Your task to perform on an android device: open app "Facebook Messenger" (install if not already installed) Image 0: 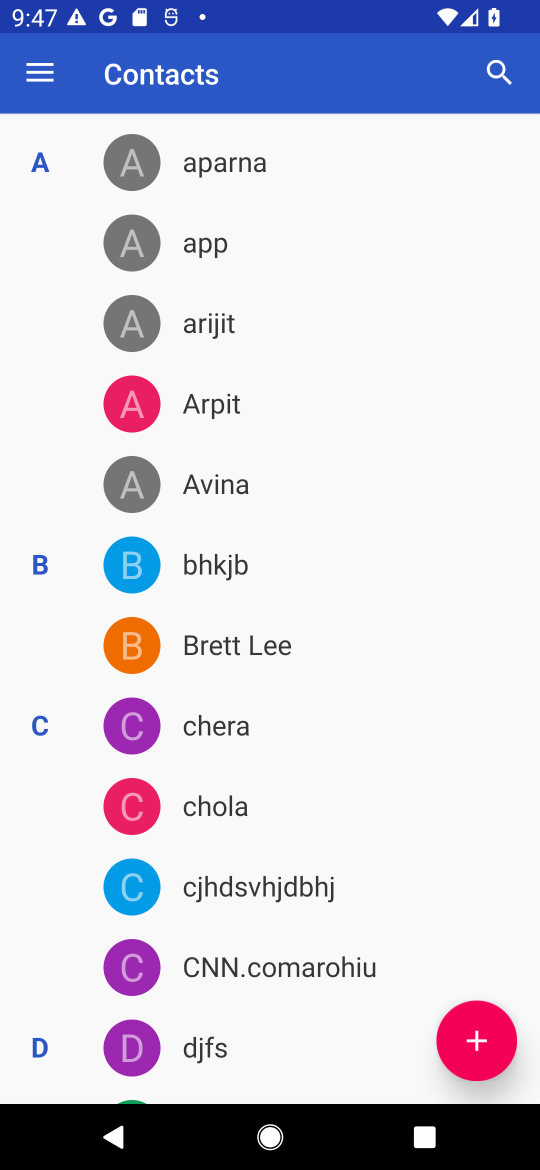
Step 0: press home button
Your task to perform on an android device: open app "Facebook Messenger" (install if not already installed) Image 1: 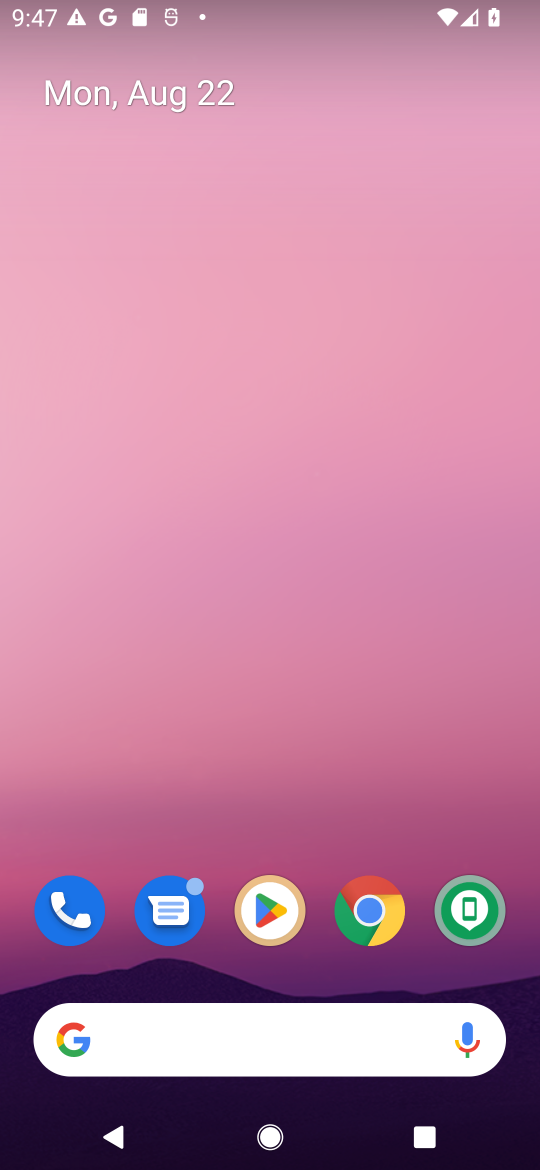
Step 1: click (267, 888)
Your task to perform on an android device: open app "Facebook Messenger" (install if not already installed) Image 2: 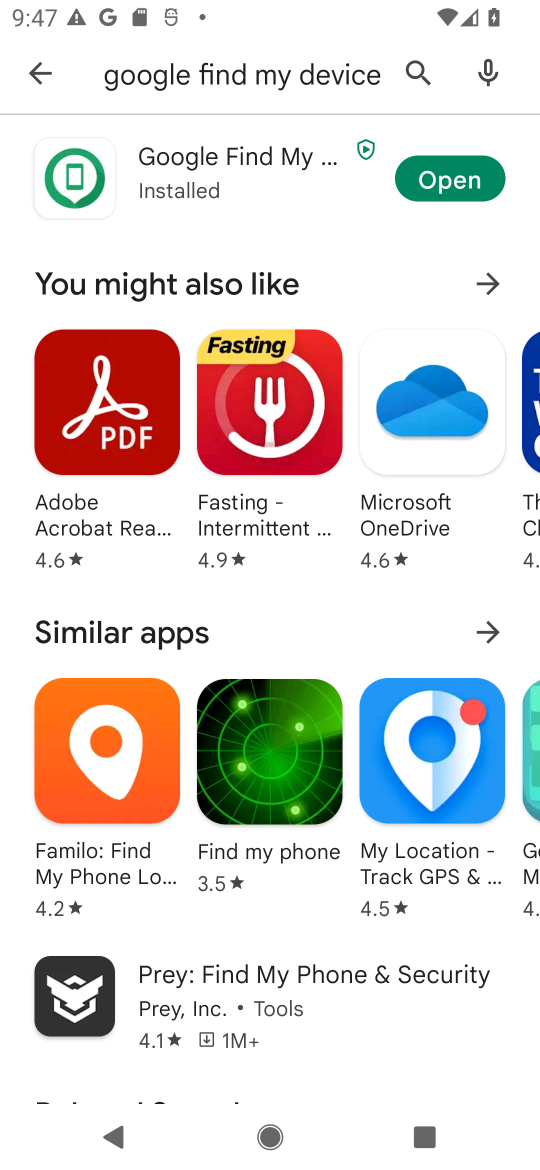
Step 2: click (413, 57)
Your task to perform on an android device: open app "Facebook Messenger" (install if not already installed) Image 3: 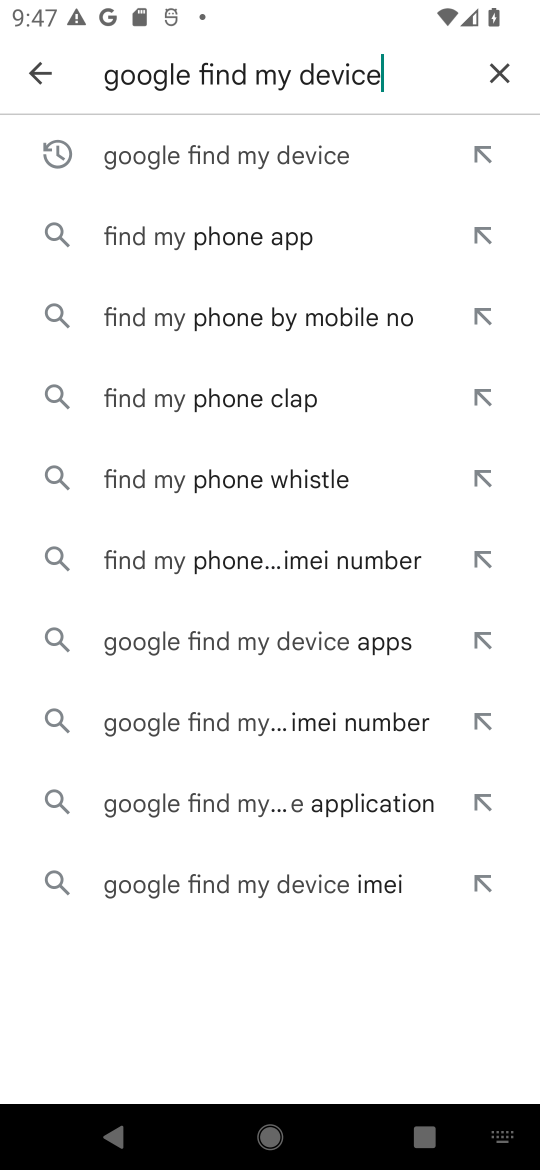
Step 3: click (491, 83)
Your task to perform on an android device: open app "Facebook Messenger" (install if not already installed) Image 4: 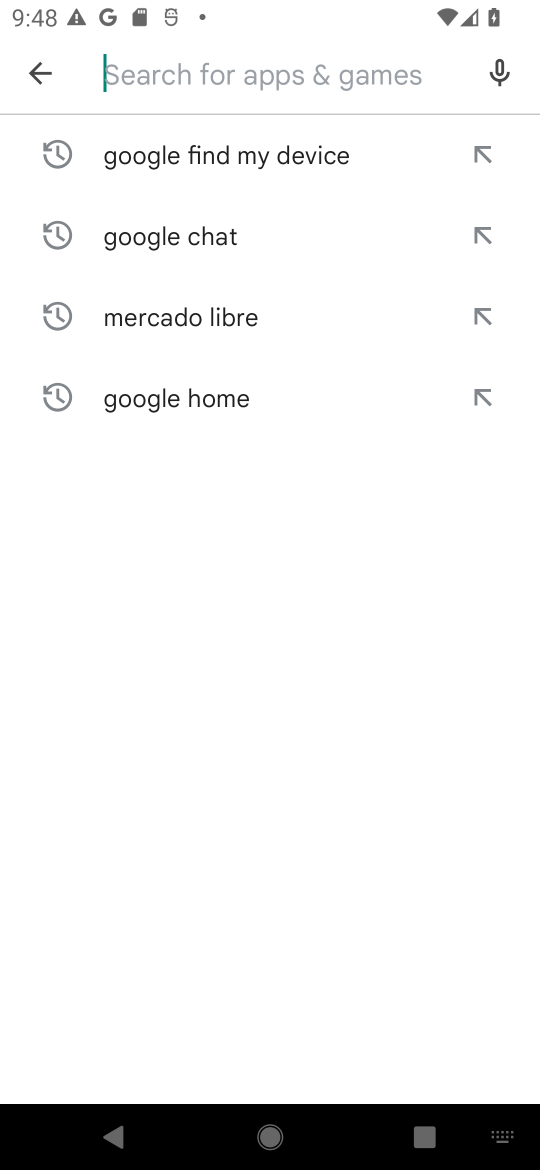
Step 4: type "Facebook Messenger"
Your task to perform on an android device: open app "Facebook Messenger" (install if not already installed) Image 5: 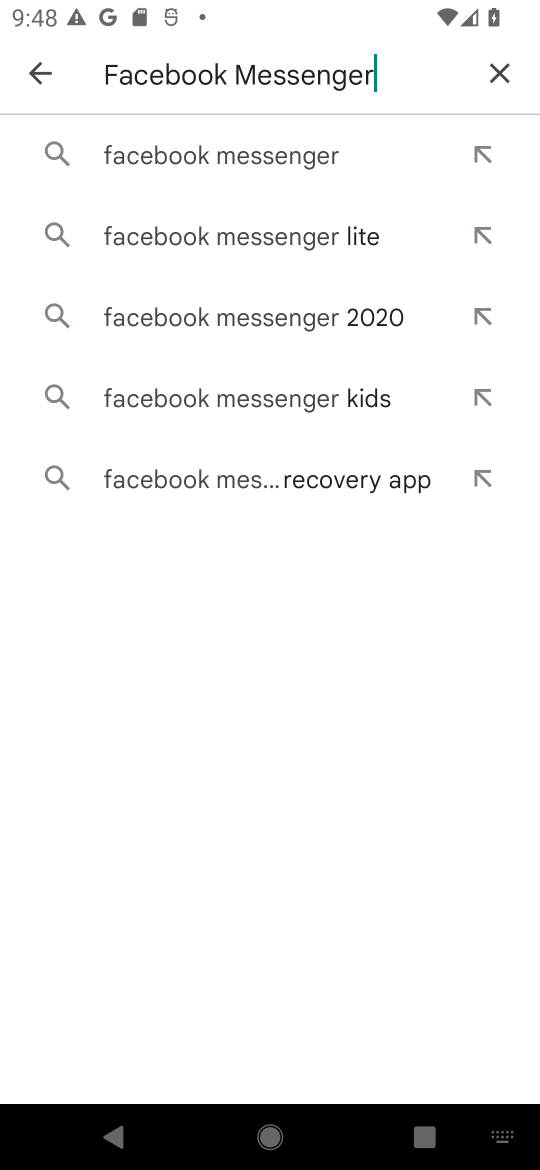
Step 5: click (256, 147)
Your task to perform on an android device: open app "Facebook Messenger" (install if not already installed) Image 6: 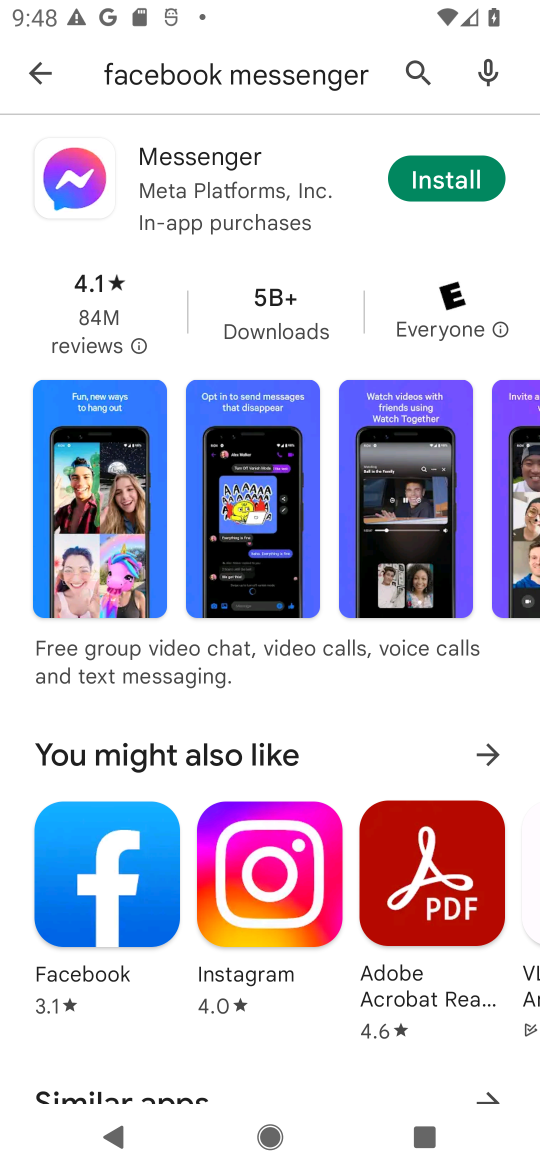
Step 6: click (436, 184)
Your task to perform on an android device: open app "Facebook Messenger" (install if not already installed) Image 7: 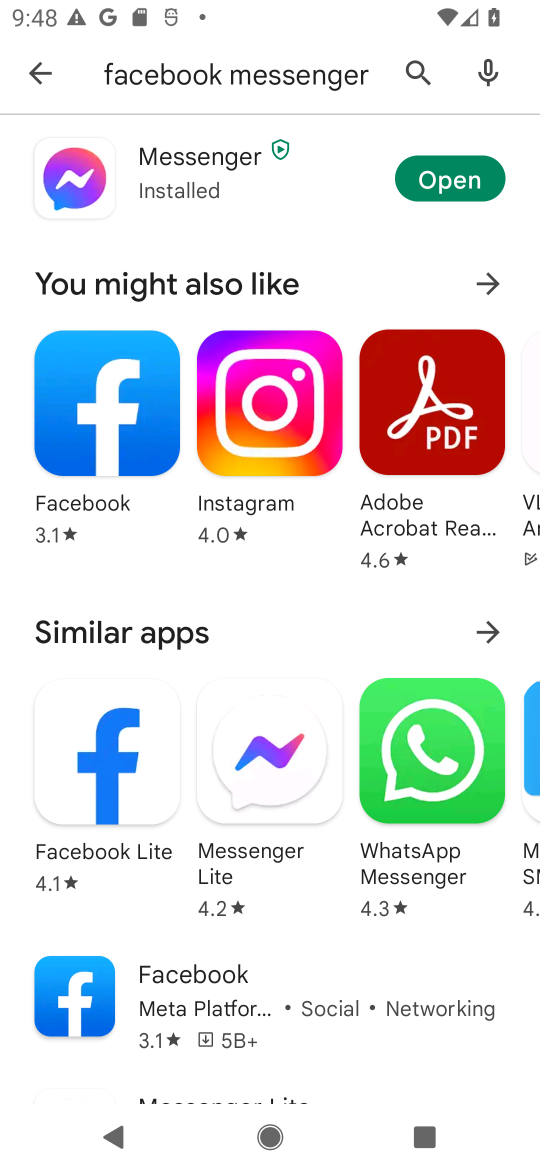
Step 7: click (442, 197)
Your task to perform on an android device: open app "Facebook Messenger" (install if not already installed) Image 8: 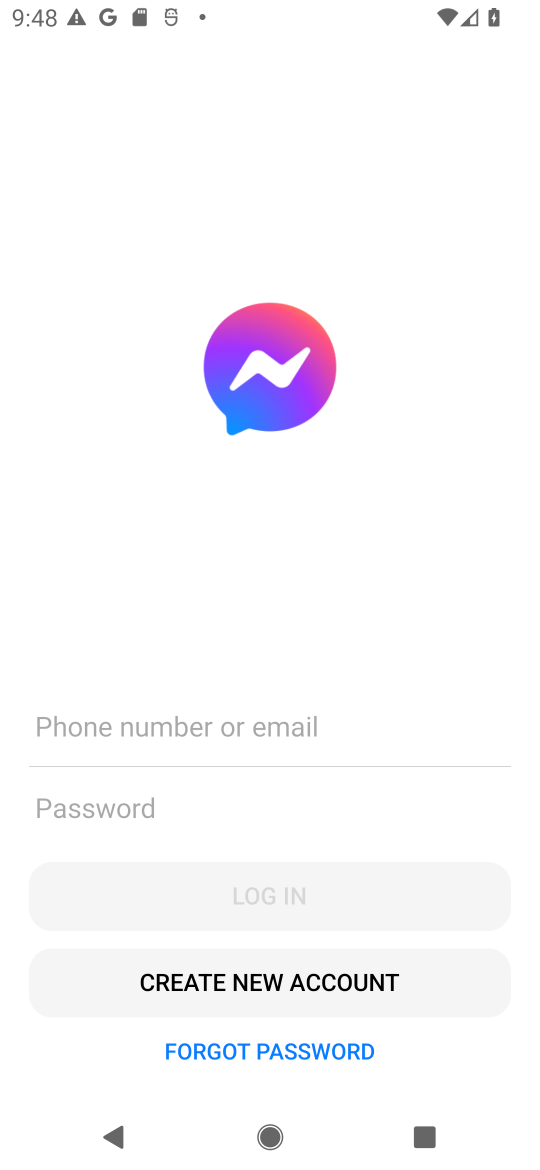
Step 8: task complete